Your task to perform on an android device: Open Google Maps and go to "Timeline" Image 0: 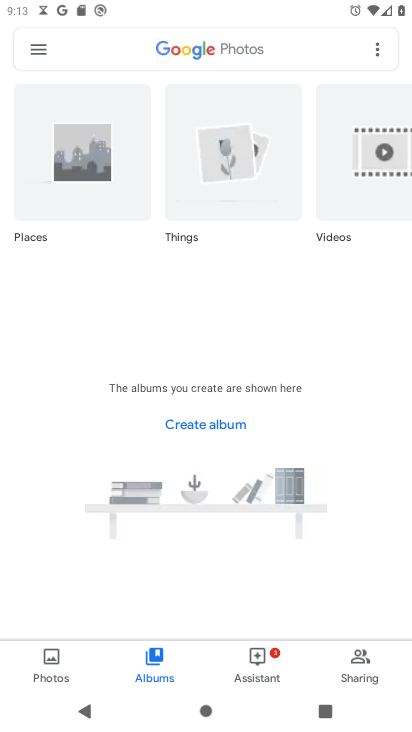
Step 0: drag from (214, 638) to (152, 92)
Your task to perform on an android device: Open Google Maps and go to "Timeline" Image 1: 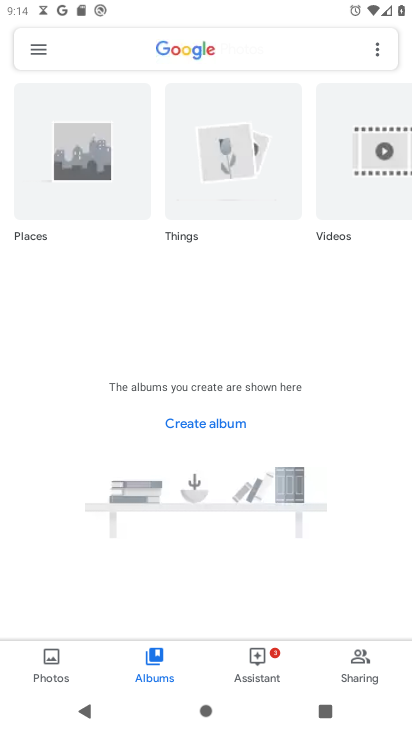
Step 1: press home button
Your task to perform on an android device: Open Google Maps and go to "Timeline" Image 2: 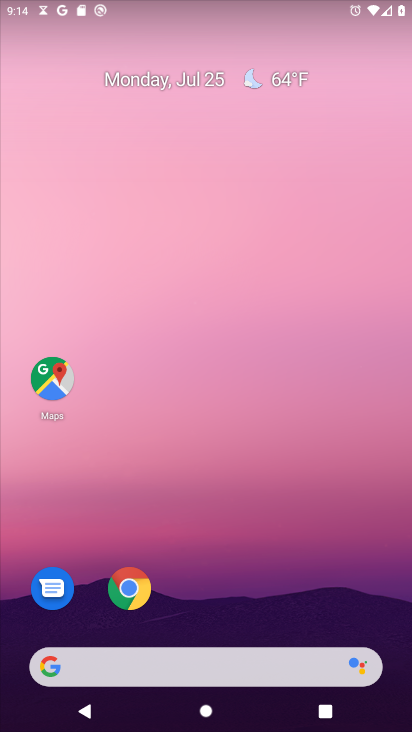
Step 2: click (49, 382)
Your task to perform on an android device: Open Google Maps and go to "Timeline" Image 3: 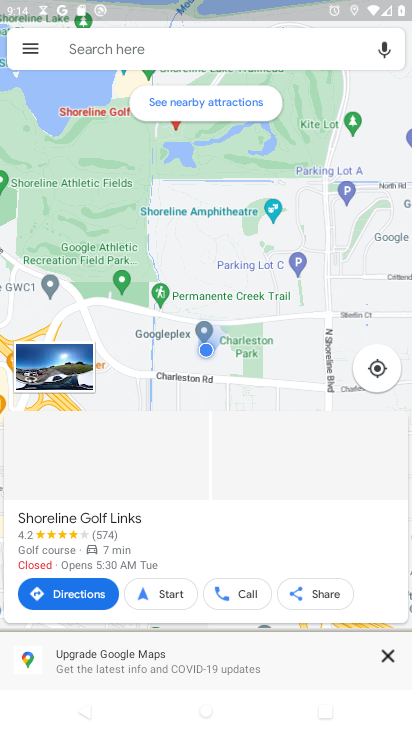
Step 3: click (30, 51)
Your task to perform on an android device: Open Google Maps and go to "Timeline" Image 4: 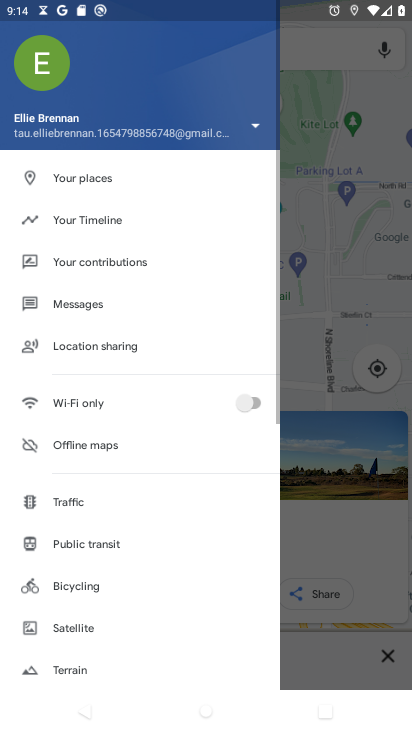
Step 4: click (123, 228)
Your task to perform on an android device: Open Google Maps and go to "Timeline" Image 5: 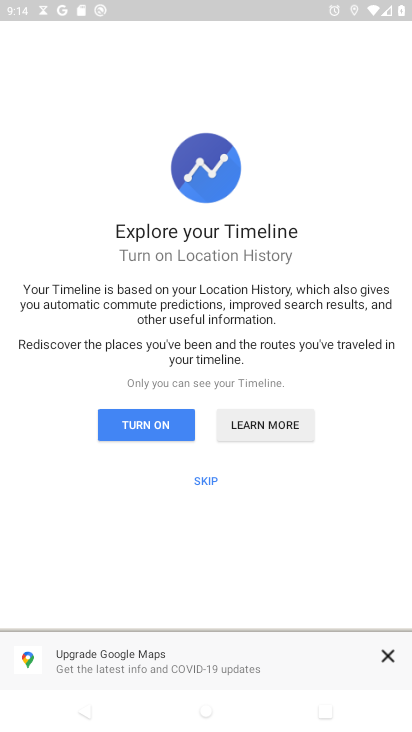
Step 5: task complete